Your task to perform on an android device: Turn on the flashlight Image 0: 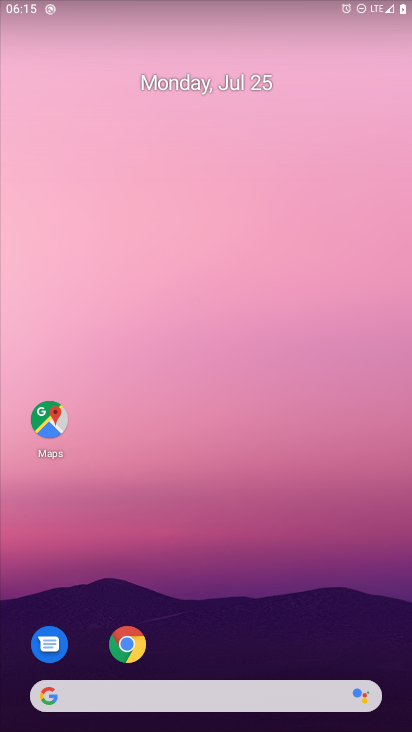
Step 0: press home button
Your task to perform on an android device: Turn on the flashlight Image 1: 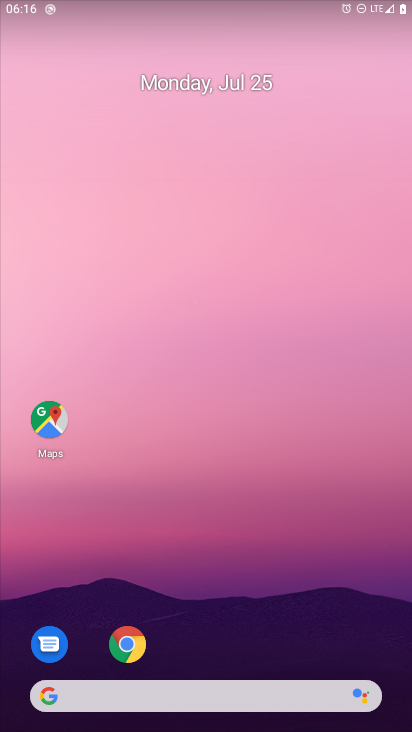
Step 1: task complete